Your task to perform on an android device: turn on the 12-hour format for clock Image 0: 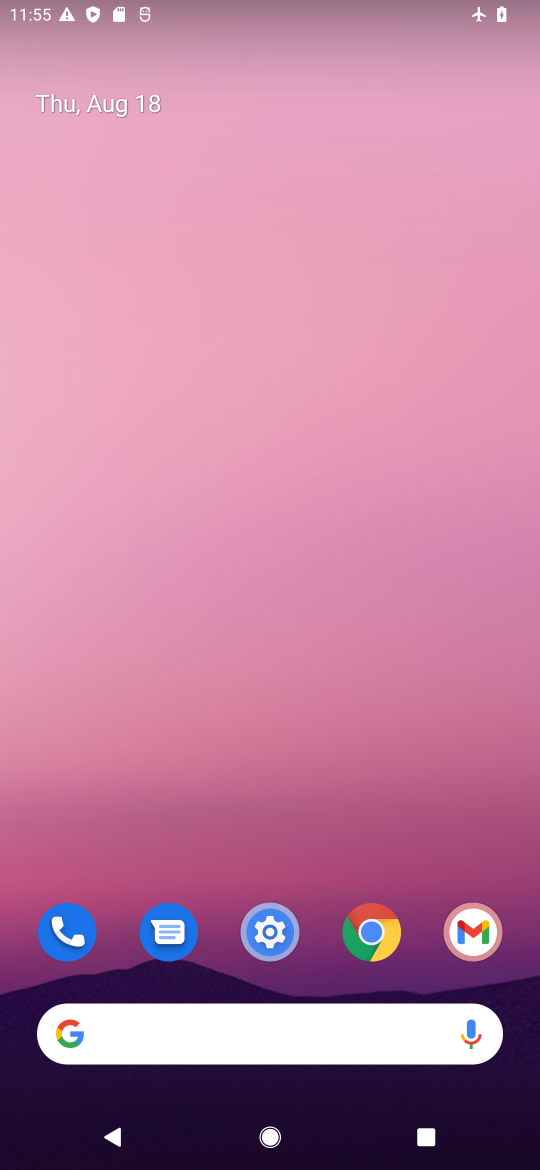
Step 0: drag from (294, 859) to (189, 60)
Your task to perform on an android device: turn on the 12-hour format for clock Image 1: 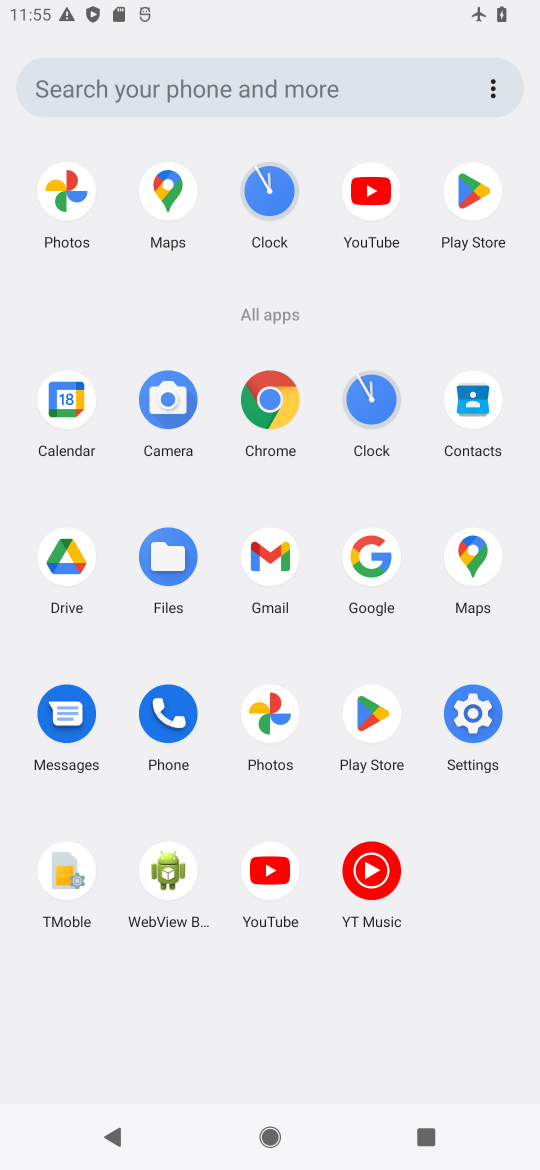
Step 1: click (374, 389)
Your task to perform on an android device: turn on the 12-hour format for clock Image 2: 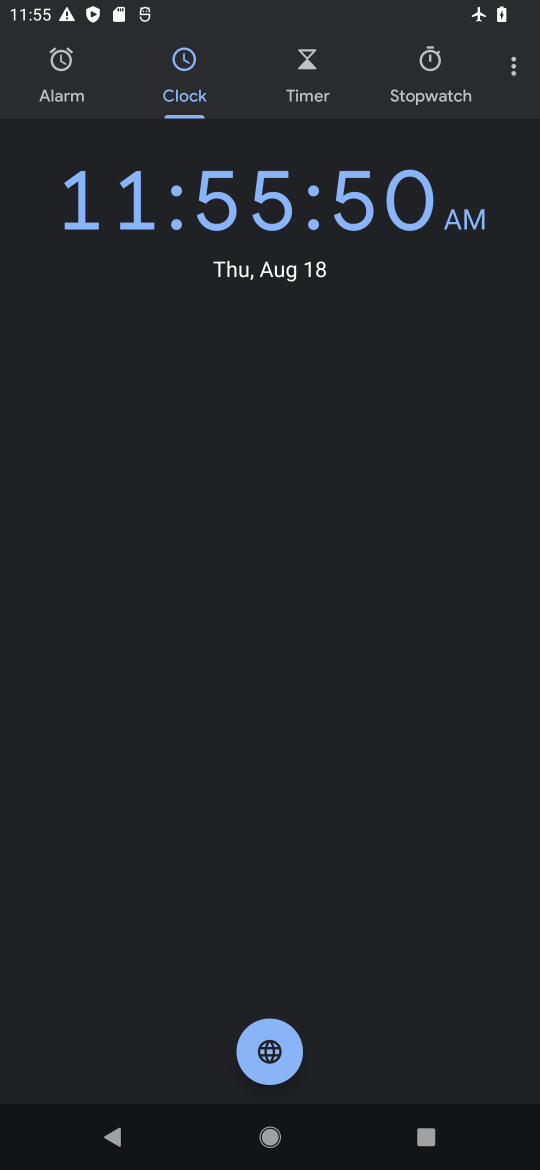
Step 2: click (514, 71)
Your task to perform on an android device: turn on the 12-hour format for clock Image 3: 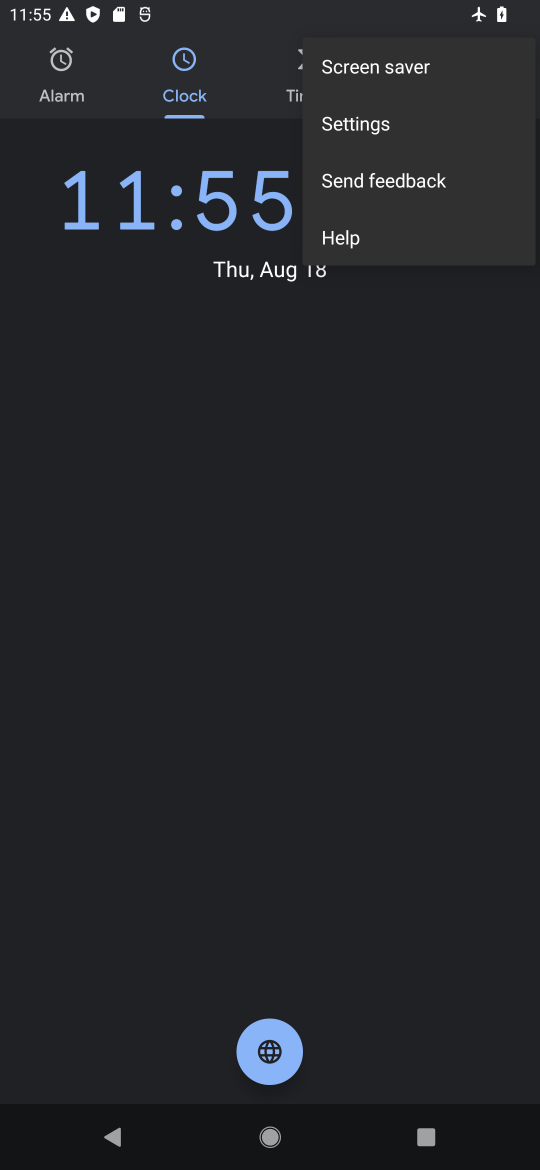
Step 3: click (379, 129)
Your task to perform on an android device: turn on the 12-hour format for clock Image 4: 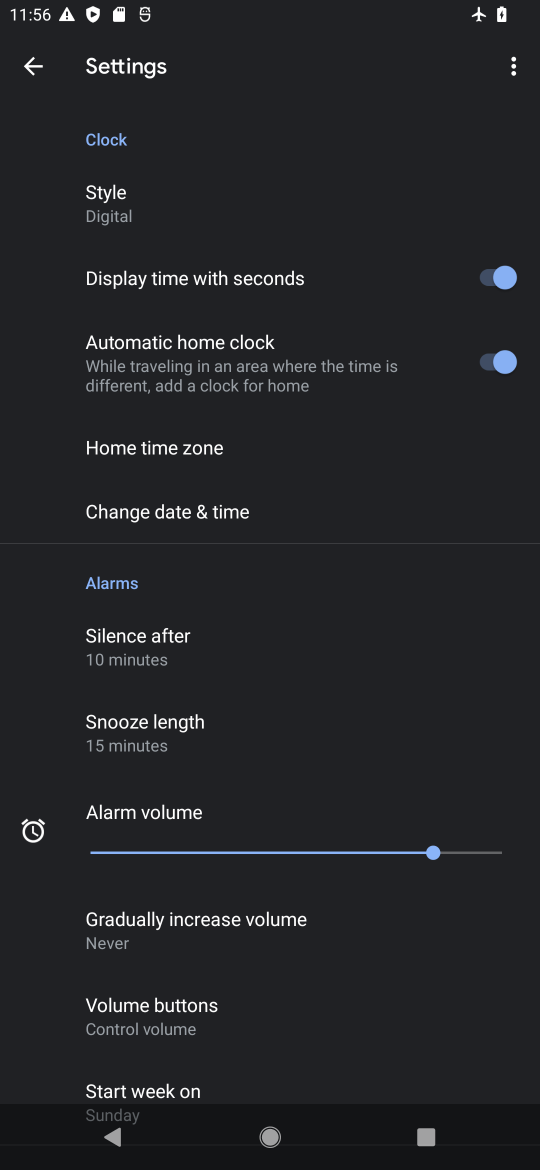
Step 4: click (170, 508)
Your task to perform on an android device: turn on the 12-hour format for clock Image 5: 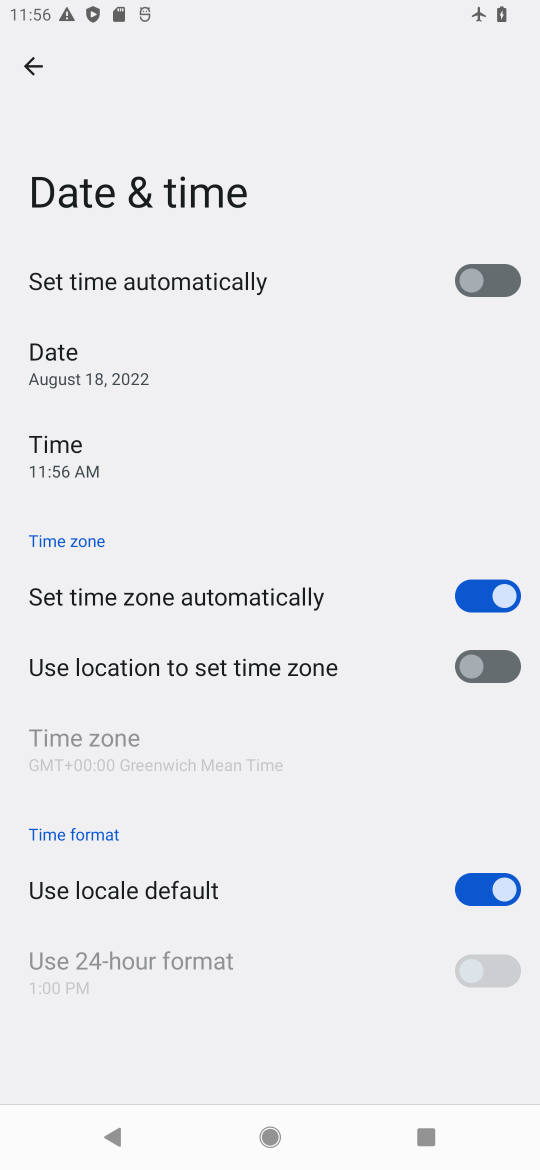
Step 5: task complete